Your task to perform on an android device: Open eBay Image 0: 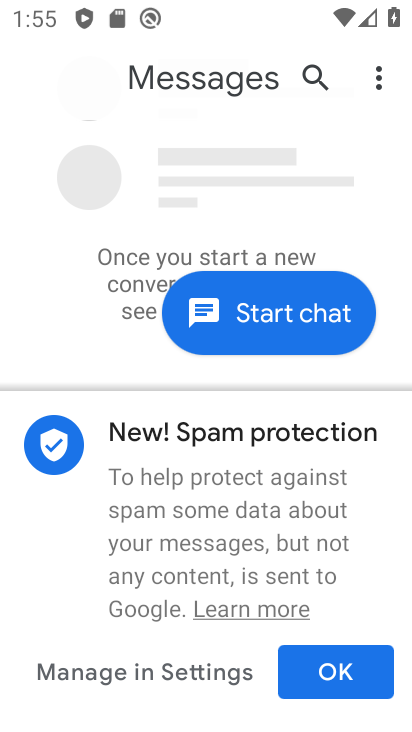
Step 0: press back button
Your task to perform on an android device: Open eBay Image 1: 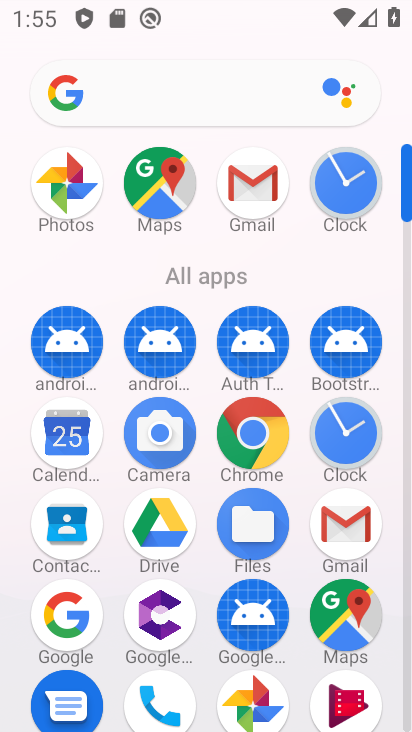
Step 1: drag from (230, 627) to (323, 94)
Your task to perform on an android device: Open eBay Image 2: 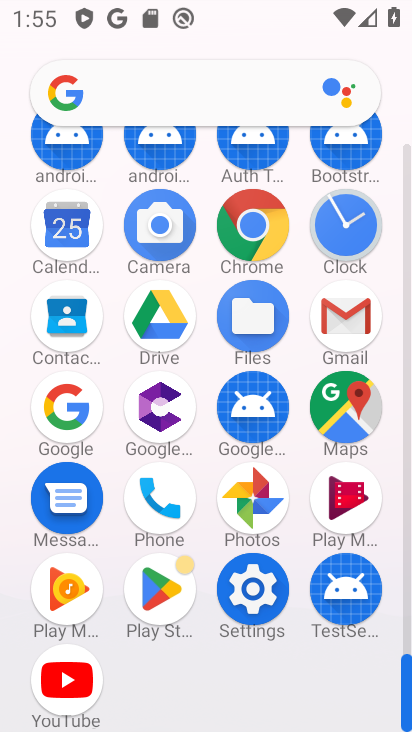
Step 2: click (236, 224)
Your task to perform on an android device: Open eBay Image 3: 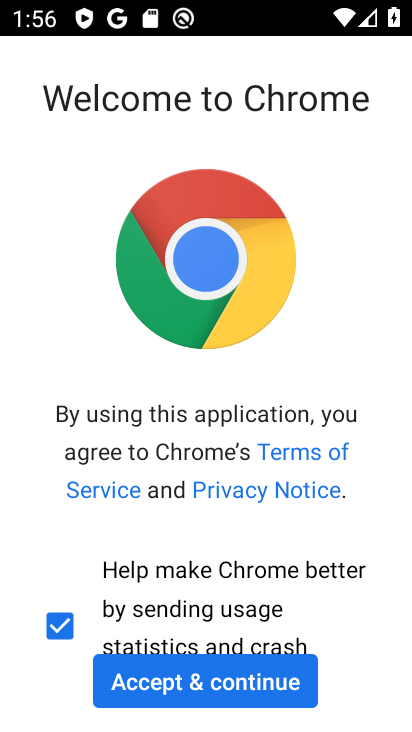
Step 3: click (188, 681)
Your task to perform on an android device: Open eBay Image 4: 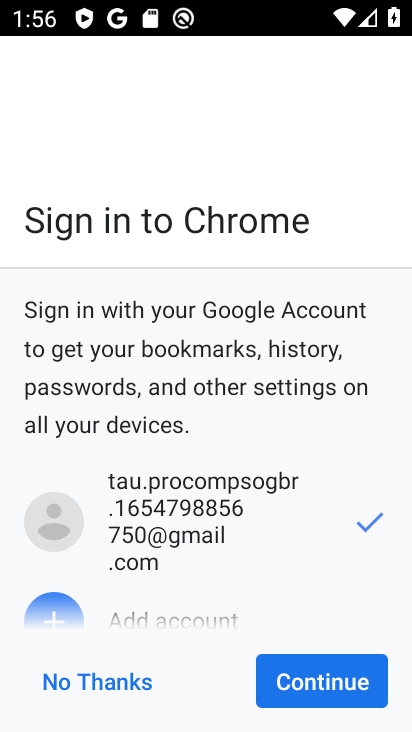
Step 4: click (341, 684)
Your task to perform on an android device: Open eBay Image 5: 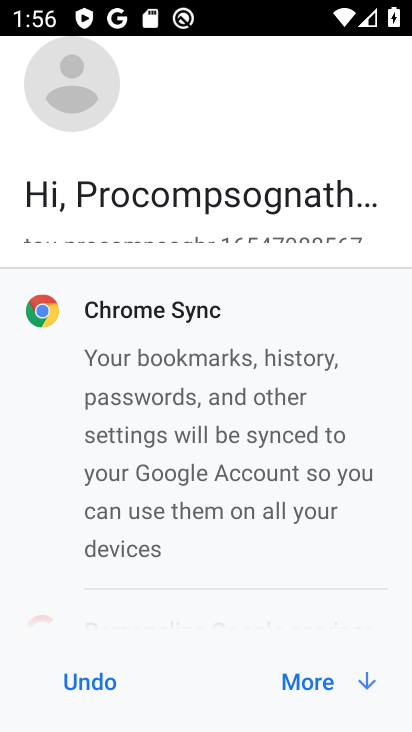
Step 5: click (341, 684)
Your task to perform on an android device: Open eBay Image 6: 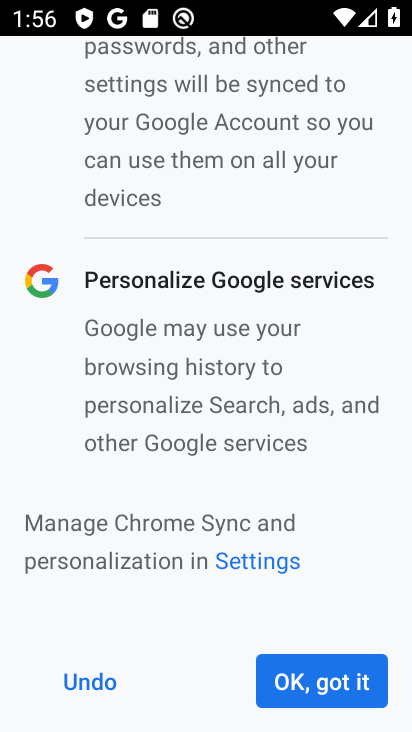
Step 6: click (325, 698)
Your task to perform on an android device: Open eBay Image 7: 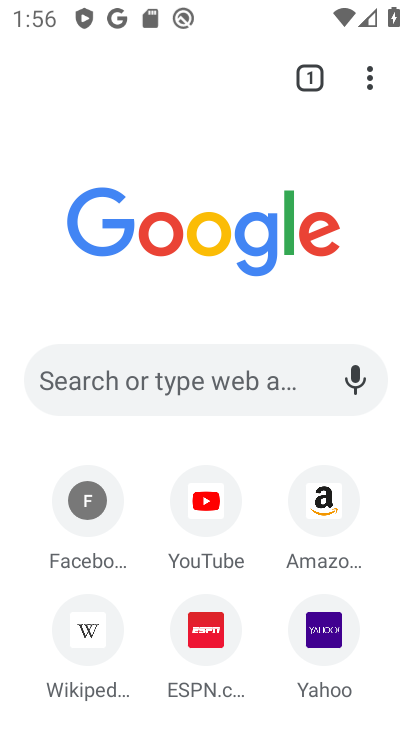
Step 7: click (113, 370)
Your task to perform on an android device: Open eBay Image 8: 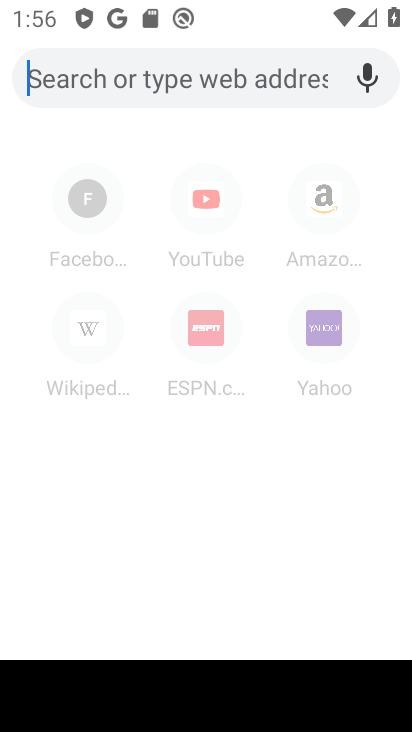
Step 8: type "ebay"
Your task to perform on an android device: Open eBay Image 9: 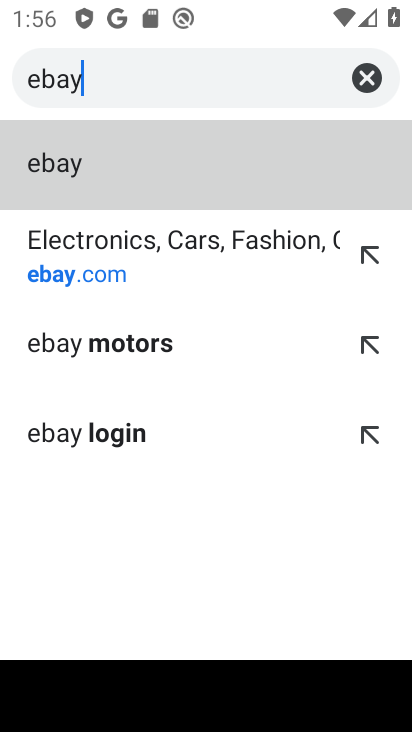
Step 9: click (114, 265)
Your task to perform on an android device: Open eBay Image 10: 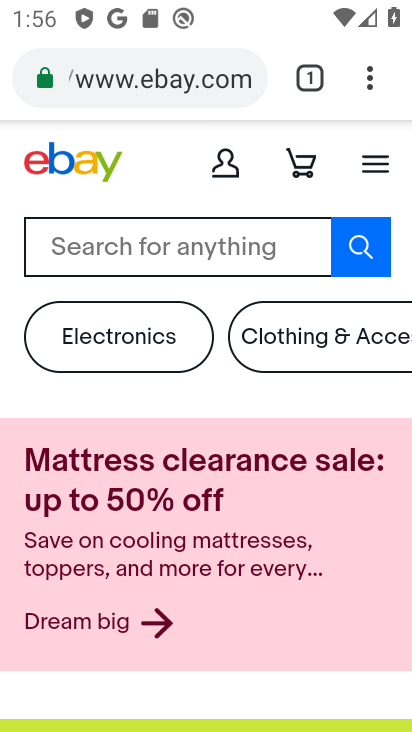
Step 10: task complete